Your task to perform on an android device: toggle notification dots Image 0: 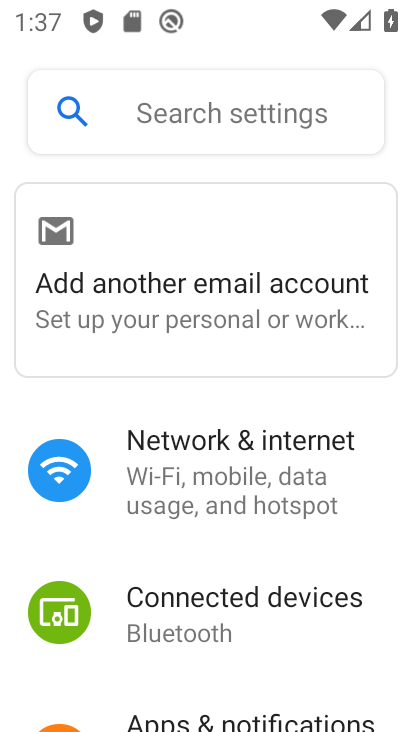
Step 0: drag from (214, 670) to (206, 316)
Your task to perform on an android device: toggle notification dots Image 1: 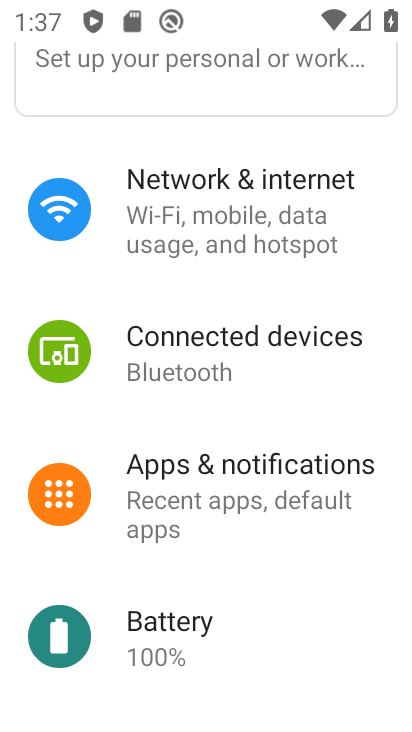
Step 1: click (200, 481)
Your task to perform on an android device: toggle notification dots Image 2: 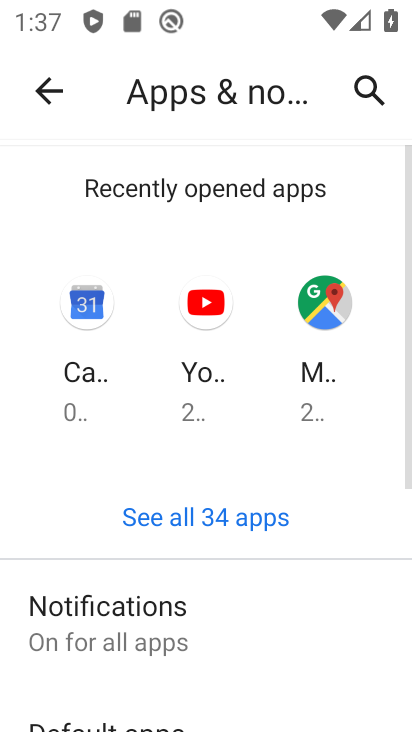
Step 2: drag from (227, 676) to (237, 355)
Your task to perform on an android device: toggle notification dots Image 3: 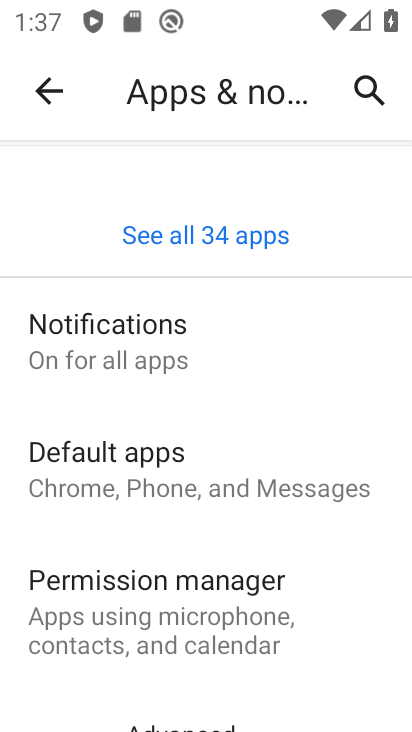
Step 3: click (83, 351)
Your task to perform on an android device: toggle notification dots Image 4: 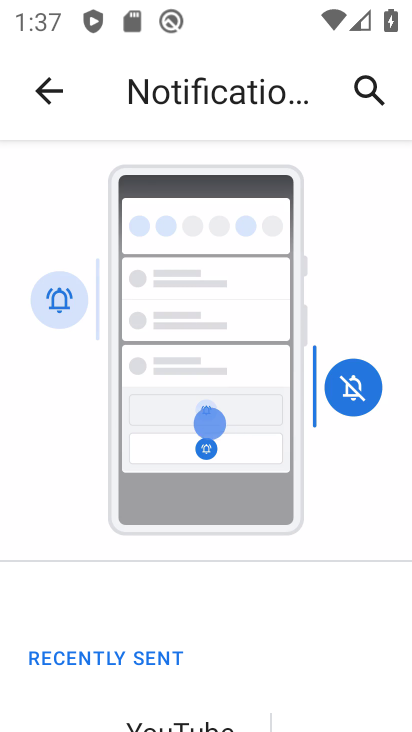
Step 4: drag from (234, 692) to (262, 271)
Your task to perform on an android device: toggle notification dots Image 5: 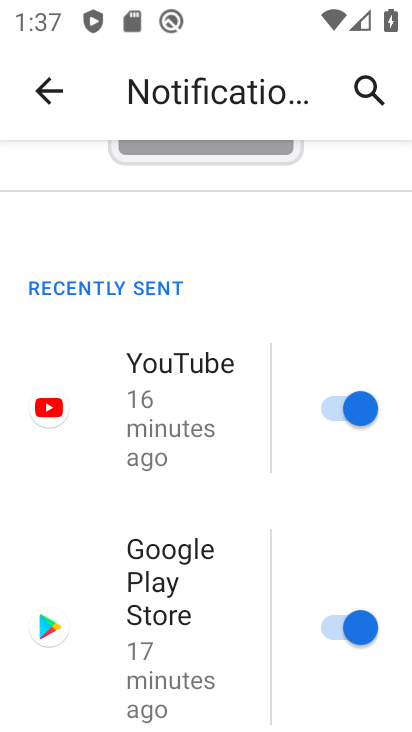
Step 5: drag from (222, 709) to (244, 360)
Your task to perform on an android device: toggle notification dots Image 6: 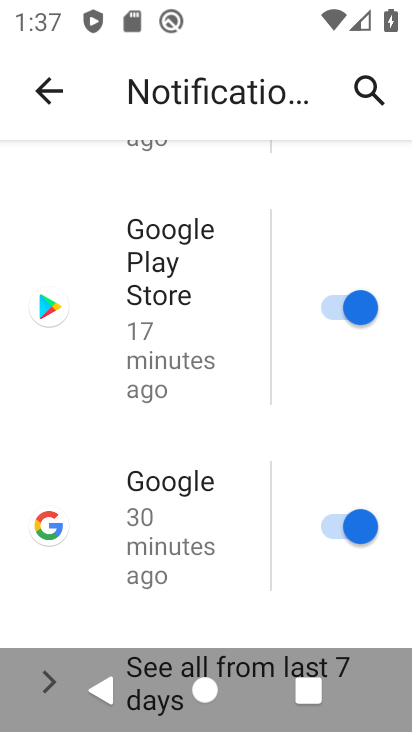
Step 6: drag from (218, 624) to (222, 264)
Your task to perform on an android device: toggle notification dots Image 7: 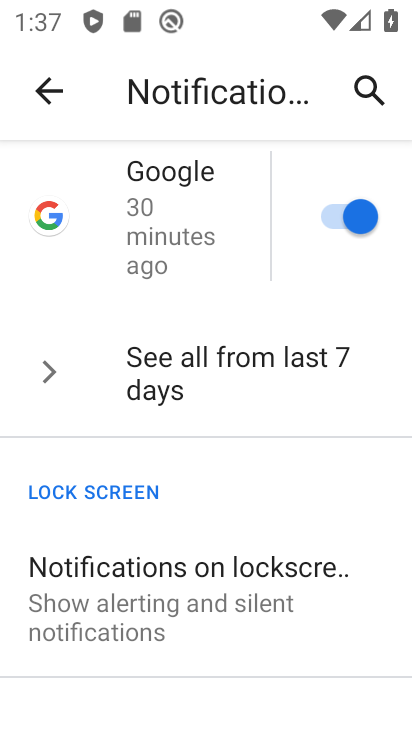
Step 7: drag from (215, 551) to (218, 276)
Your task to perform on an android device: toggle notification dots Image 8: 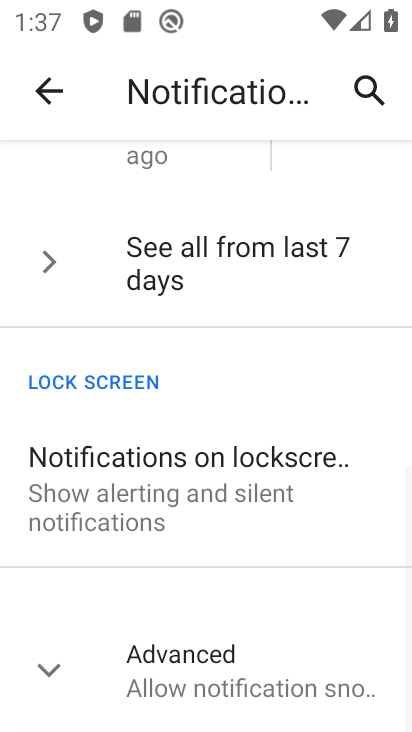
Step 8: click (172, 670)
Your task to perform on an android device: toggle notification dots Image 9: 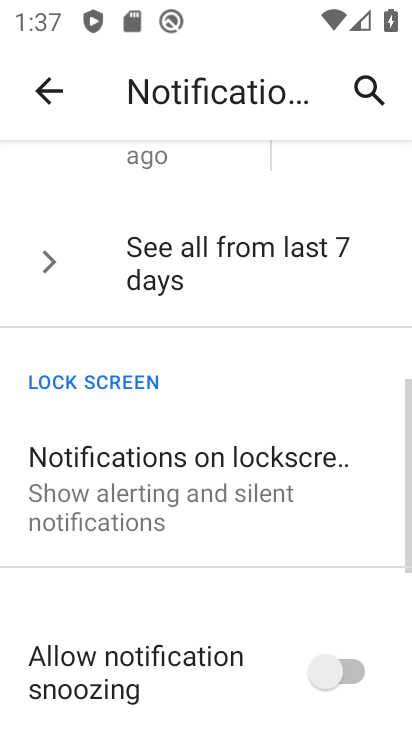
Step 9: drag from (219, 702) to (220, 321)
Your task to perform on an android device: toggle notification dots Image 10: 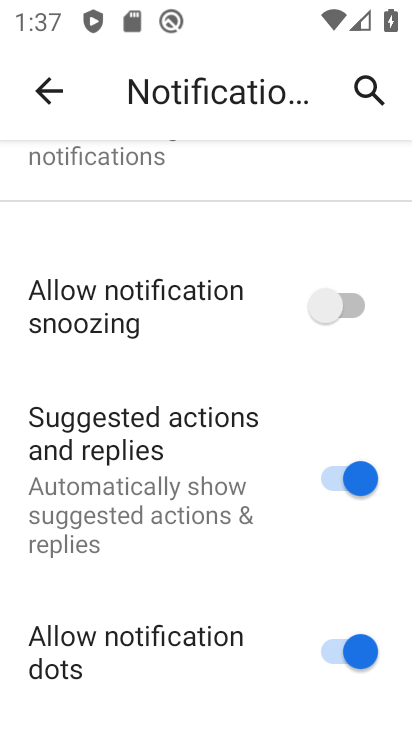
Step 10: click (331, 651)
Your task to perform on an android device: toggle notification dots Image 11: 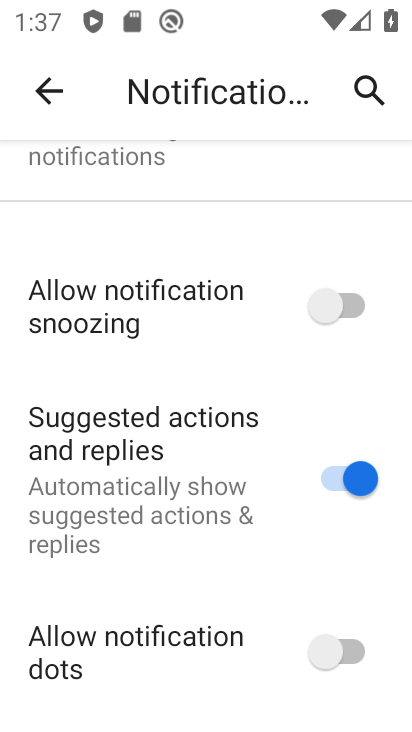
Step 11: task complete